Your task to perform on an android device: snooze an email in the gmail app Image 0: 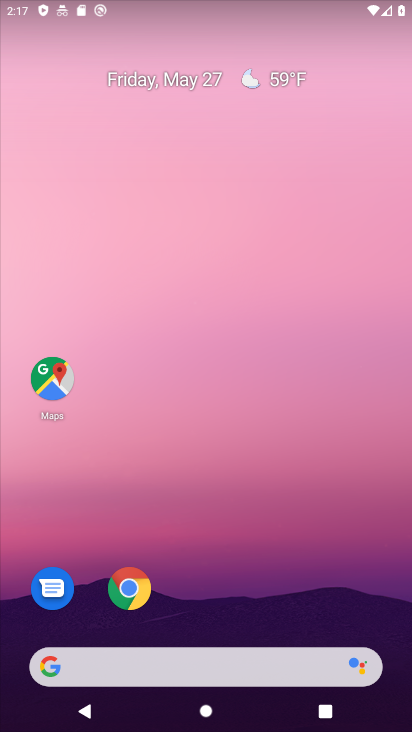
Step 0: drag from (256, 624) to (173, 58)
Your task to perform on an android device: snooze an email in the gmail app Image 1: 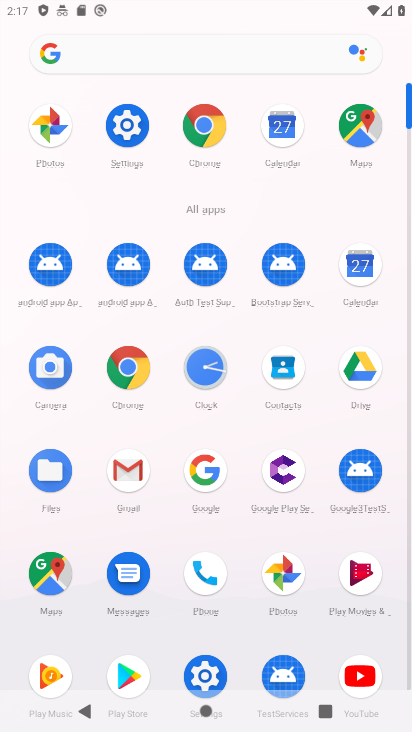
Step 1: click (111, 466)
Your task to perform on an android device: snooze an email in the gmail app Image 2: 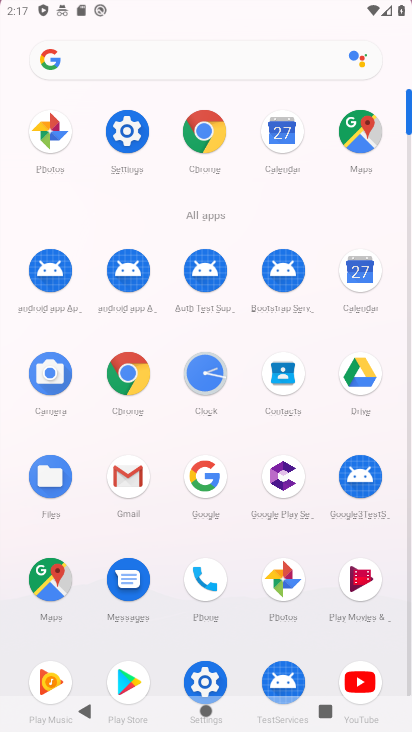
Step 2: click (123, 479)
Your task to perform on an android device: snooze an email in the gmail app Image 3: 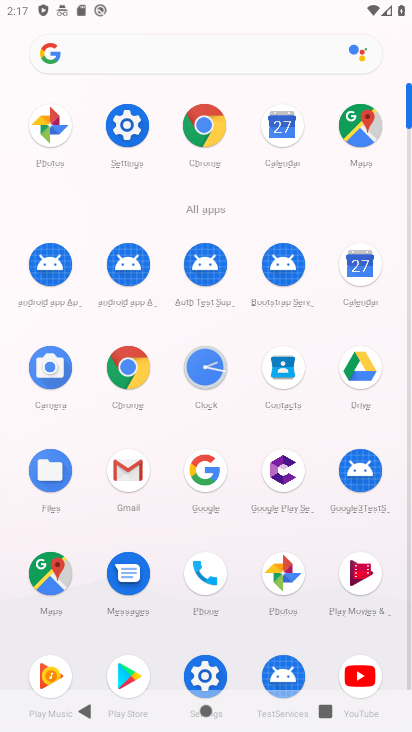
Step 3: click (123, 479)
Your task to perform on an android device: snooze an email in the gmail app Image 4: 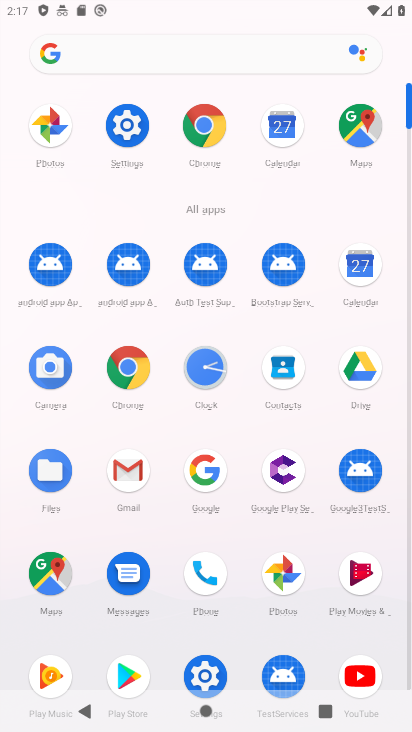
Step 4: click (123, 479)
Your task to perform on an android device: snooze an email in the gmail app Image 5: 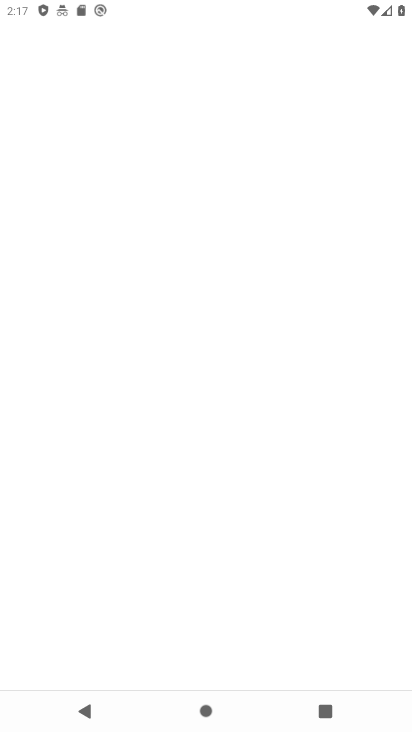
Step 5: click (123, 479)
Your task to perform on an android device: snooze an email in the gmail app Image 6: 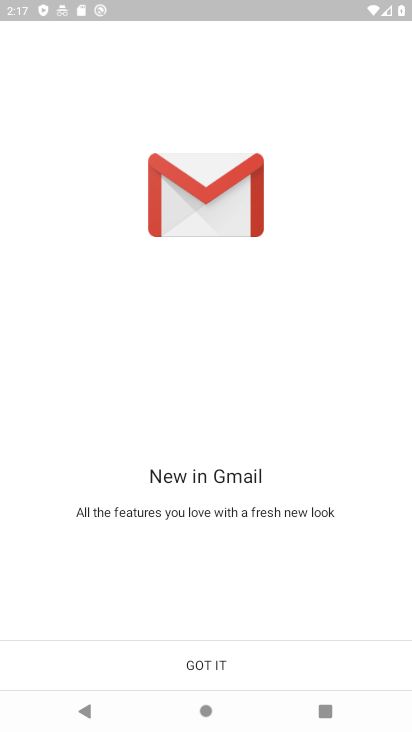
Step 6: click (201, 661)
Your task to perform on an android device: snooze an email in the gmail app Image 7: 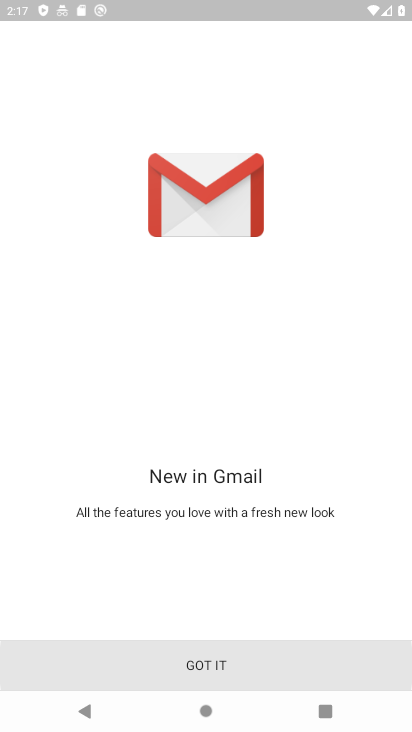
Step 7: click (208, 654)
Your task to perform on an android device: snooze an email in the gmail app Image 8: 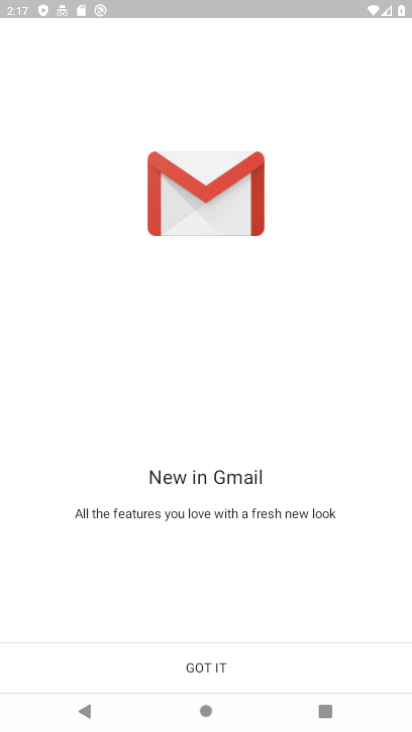
Step 8: click (208, 654)
Your task to perform on an android device: snooze an email in the gmail app Image 9: 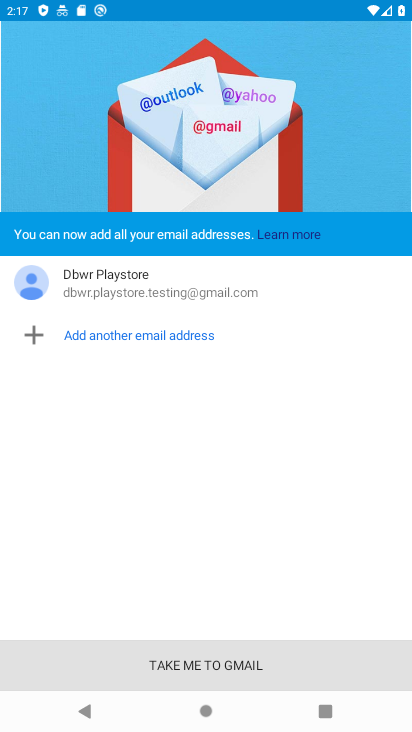
Step 9: click (209, 654)
Your task to perform on an android device: snooze an email in the gmail app Image 10: 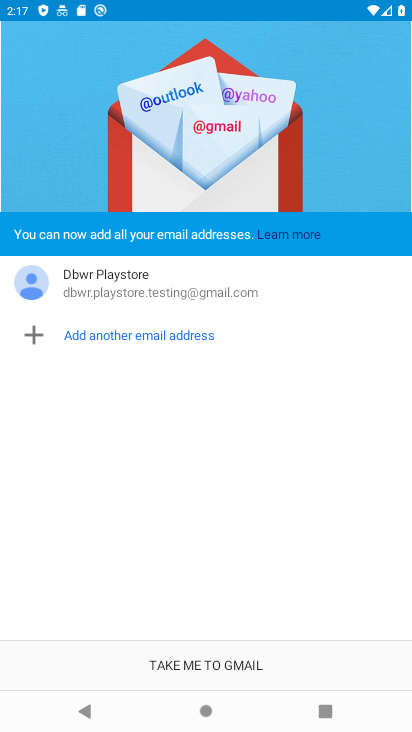
Step 10: click (210, 653)
Your task to perform on an android device: snooze an email in the gmail app Image 11: 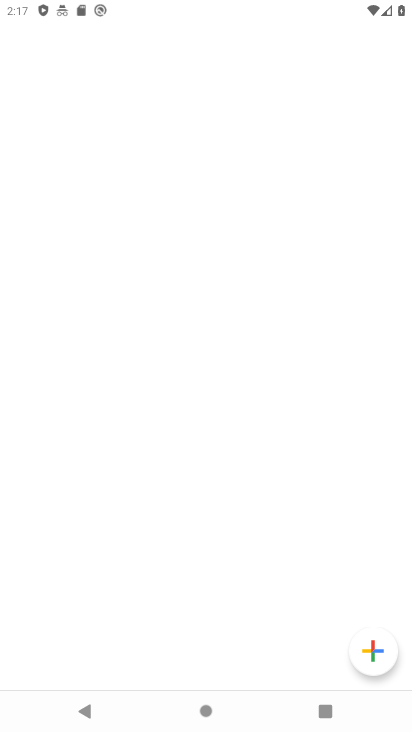
Step 11: click (210, 653)
Your task to perform on an android device: snooze an email in the gmail app Image 12: 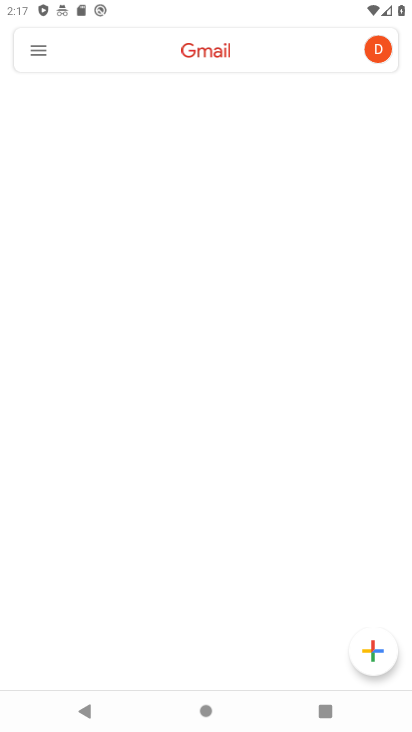
Step 12: click (211, 650)
Your task to perform on an android device: snooze an email in the gmail app Image 13: 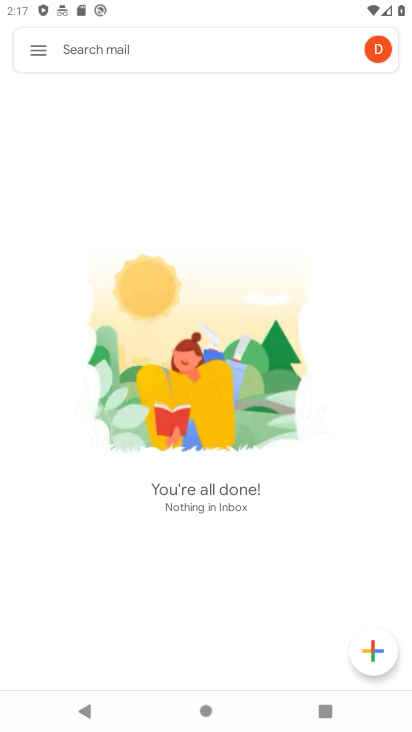
Step 13: click (39, 52)
Your task to perform on an android device: snooze an email in the gmail app Image 14: 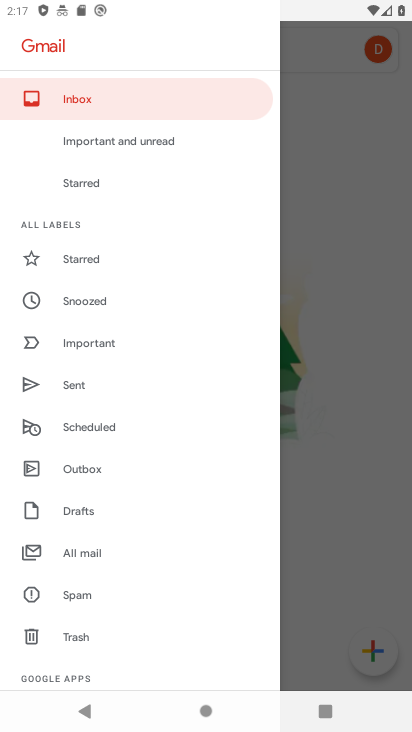
Step 14: drag from (93, 452) to (106, 253)
Your task to perform on an android device: snooze an email in the gmail app Image 15: 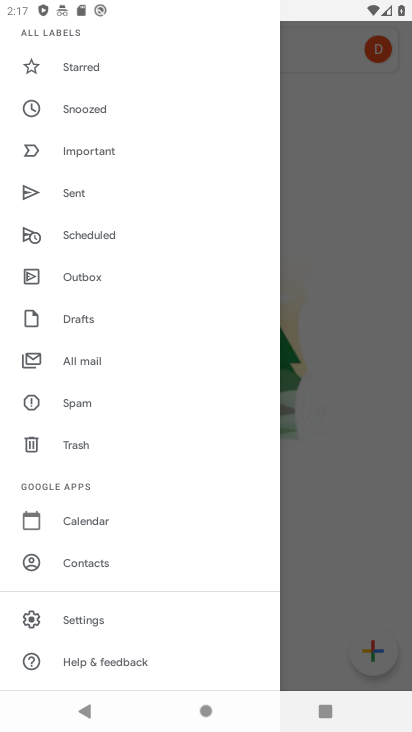
Step 15: click (88, 115)
Your task to perform on an android device: snooze an email in the gmail app Image 16: 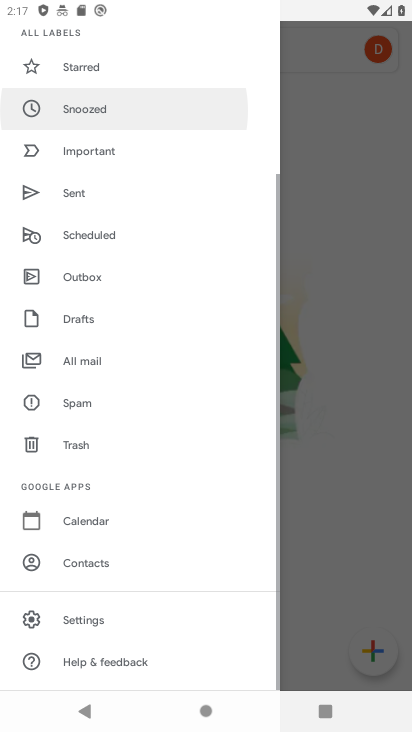
Step 16: click (88, 115)
Your task to perform on an android device: snooze an email in the gmail app Image 17: 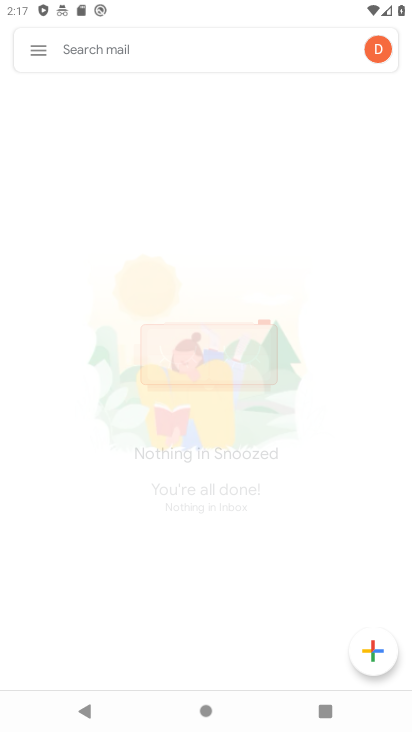
Step 17: click (88, 115)
Your task to perform on an android device: snooze an email in the gmail app Image 18: 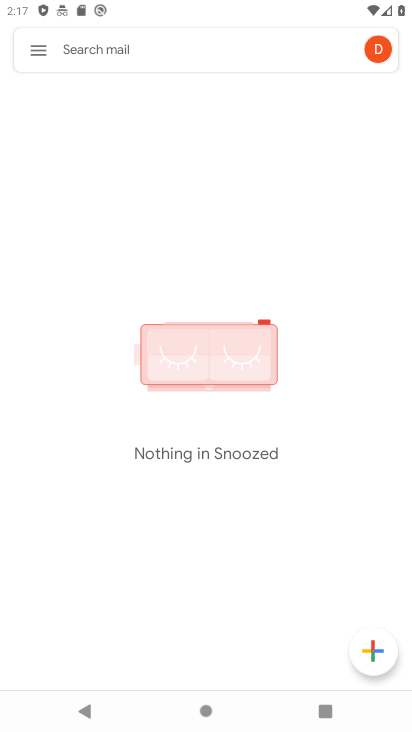
Step 18: click (88, 115)
Your task to perform on an android device: snooze an email in the gmail app Image 19: 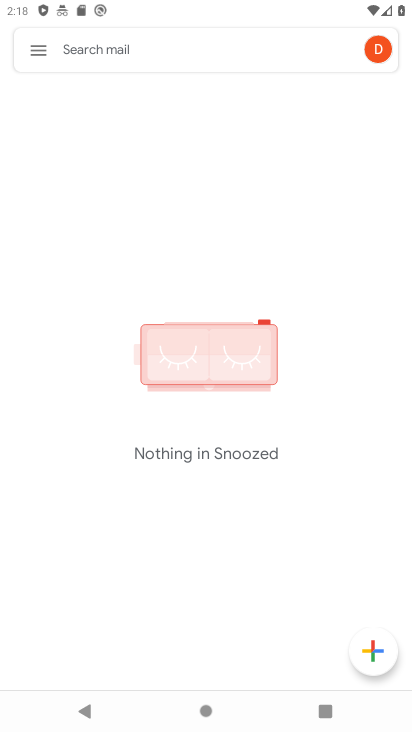
Step 19: task complete